Your task to perform on an android device: Go to display settings Image 0: 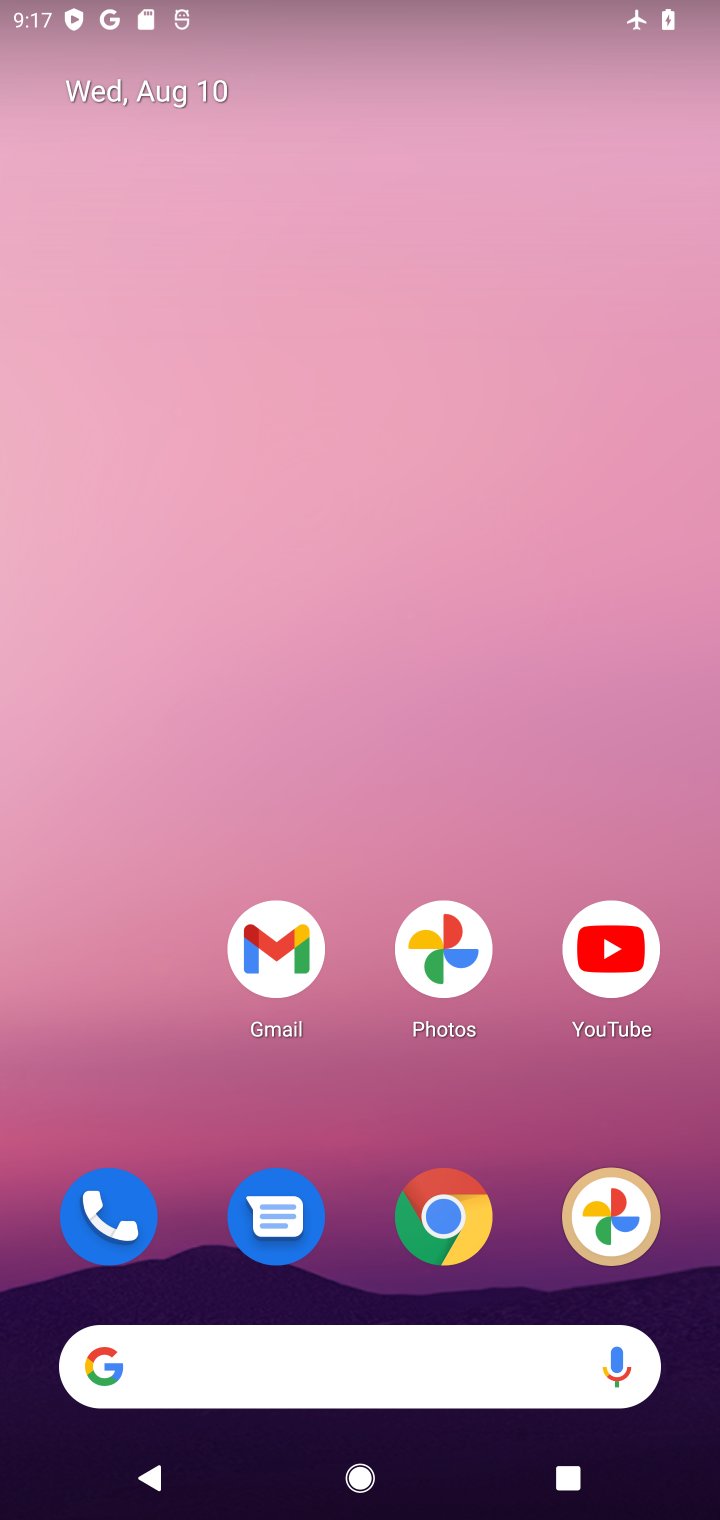
Step 0: drag from (192, 1017) to (633, 92)
Your task to perform on an android device: Go to display settings Image 1: 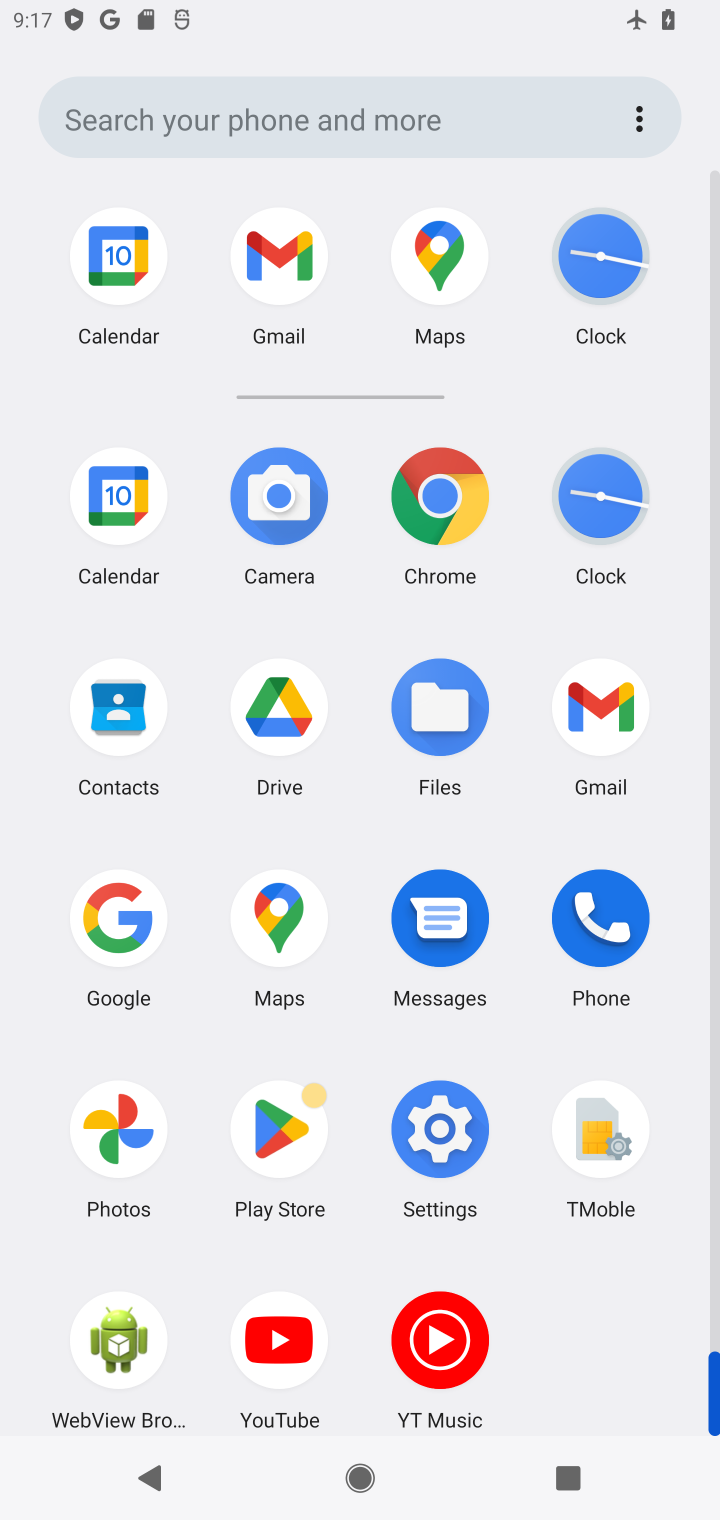
Step 1: click (418, 1139)
Your task to perform on an android device: Go to display settings Image 2: 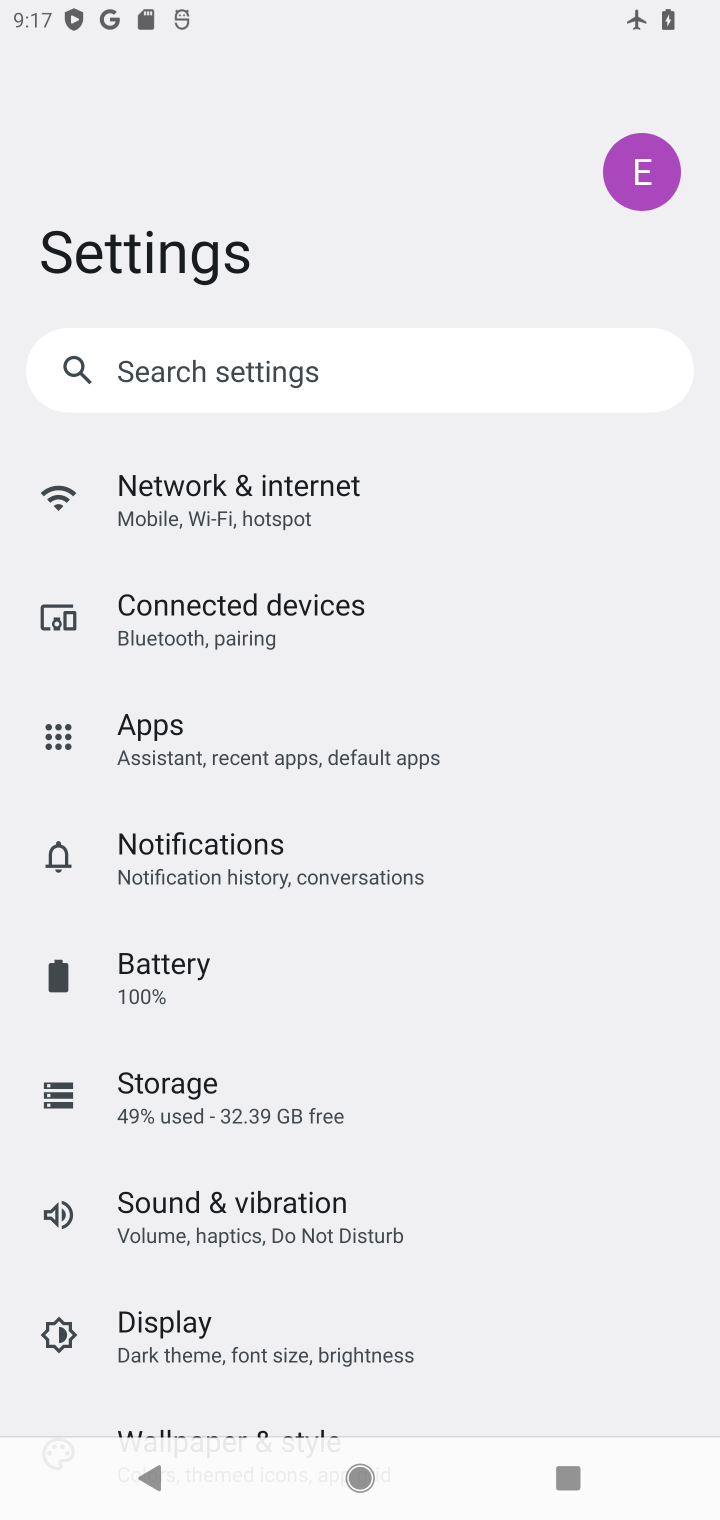
Step 2: click (322, 1316)
Your task to perform on an android device: Go to display settings Image 3: 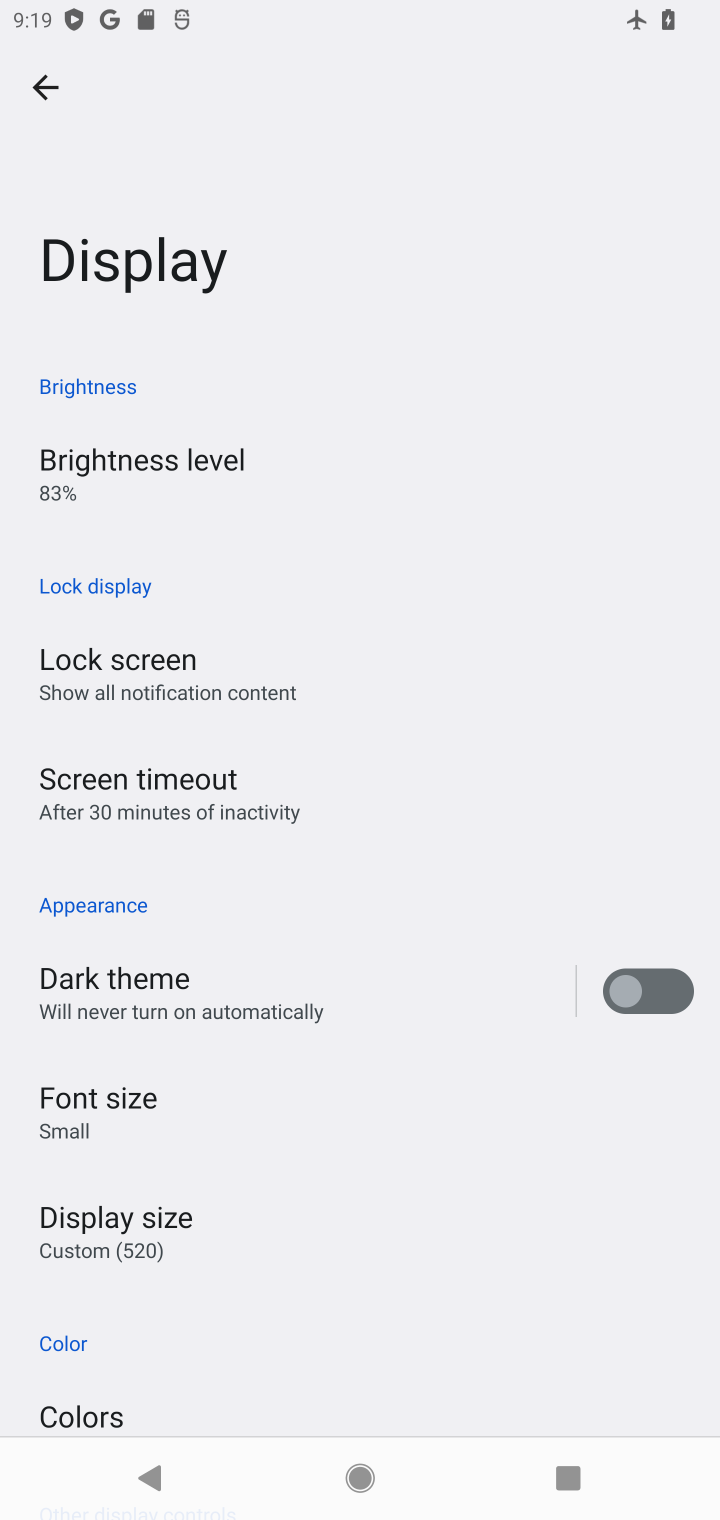
Step 3: task complete